Your task to perform on an android device: visit the assistant section in the google photos Image 0: 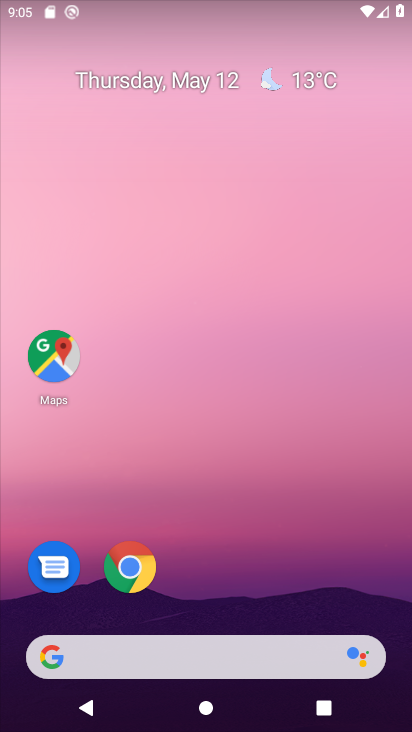
Step 0: drag from (264, 551) to (177, 1)
Your task to perform on an android device: visit the assistant section in the google photos Image 1: 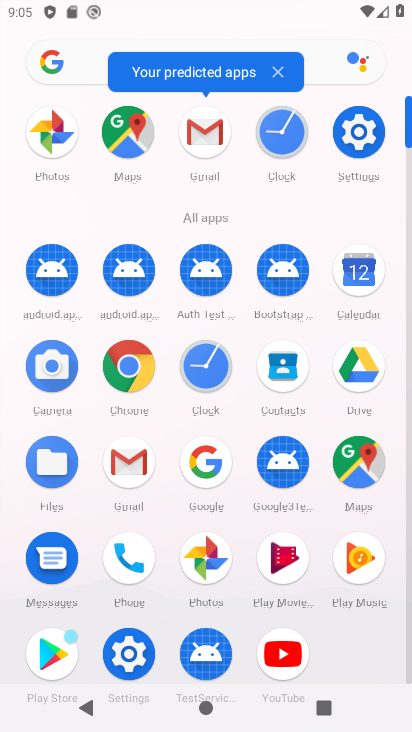
Step 1: click (197, 556)
Your task to perform on an android device: visit the assistant section in the google photos Image 2: 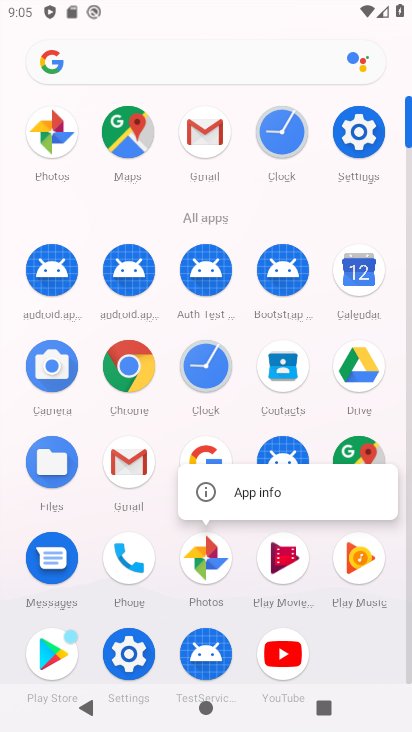
Step 2: click (215, 596)
Your task to perform on an android device: visit the assistant section in the google photos Image 3: 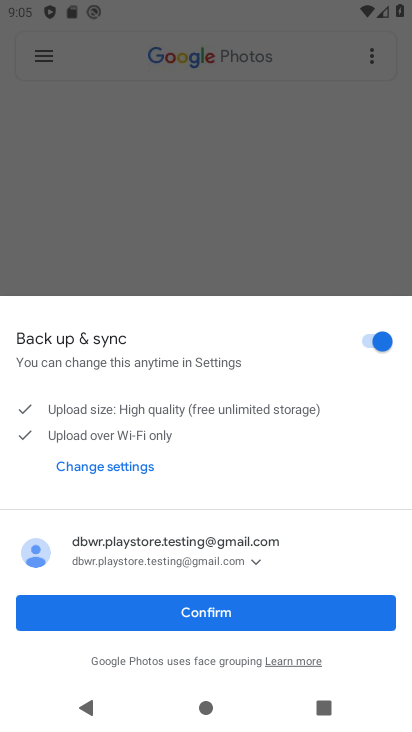
Step 3: click (294, 611)
Your task to perform on an android device: visit the assistant section in the google photos Image 4: 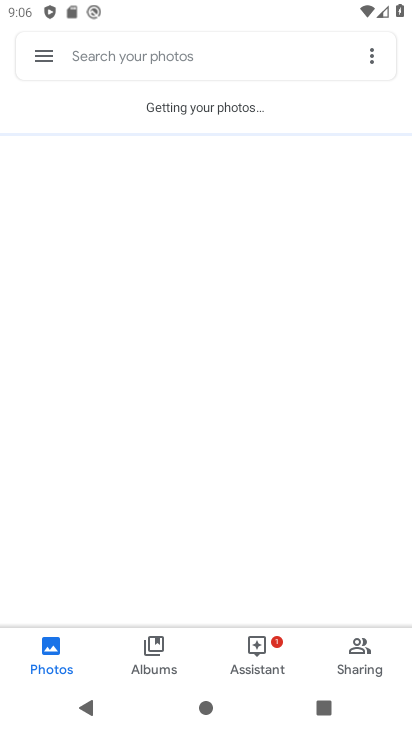
Step 4: click (253, 672)
Your task to perform on an android device: visit the assistant section in the google photos Image 5: 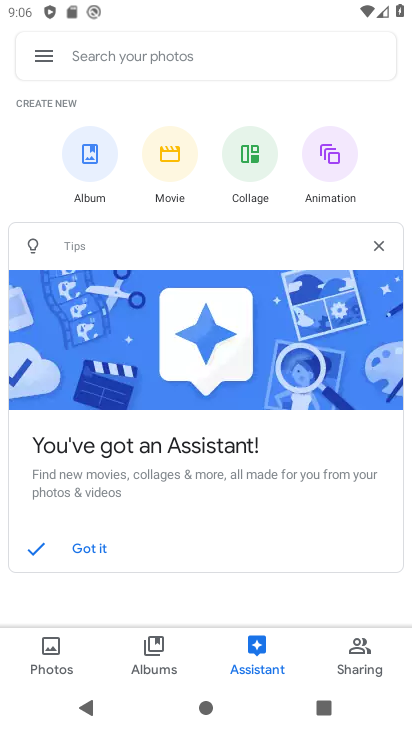
Step 5: task complete